Your task to perform on an android device: Is it going to rain today? Image 0: 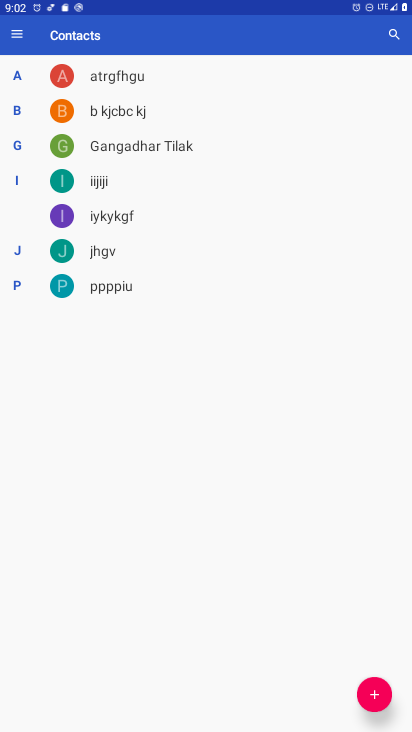
Step 0: press home button
Your task to perform on an android device: Is it going to rain today? Image 1: 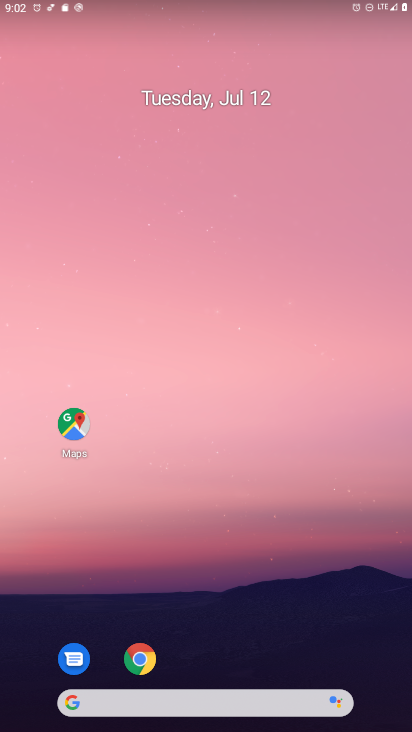
Step 1: drag from (173, 706) to (212, 166)
Your task to perform on an android device: Is it going to rain today? Image 2: 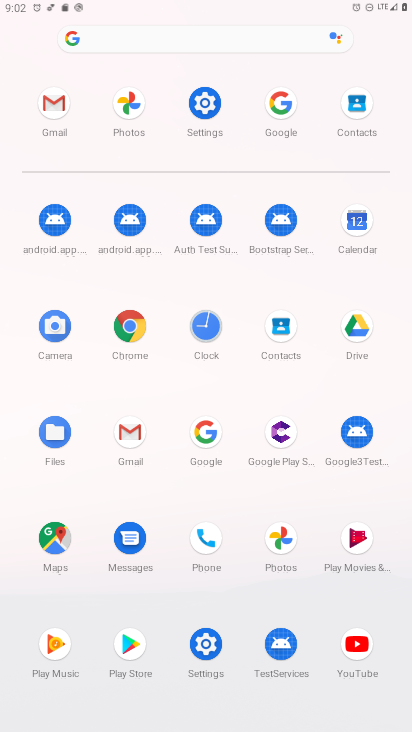
Step 2: click (203, 432)
Your task to perform on an android device: Is it going to rain today? Image 3: 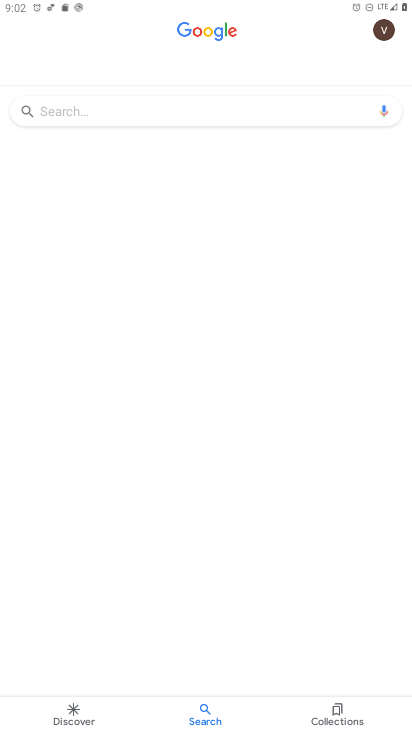
Step 3: click (232, 106)
Your task to perform on an android device: Is it going to rain today? Image 4: 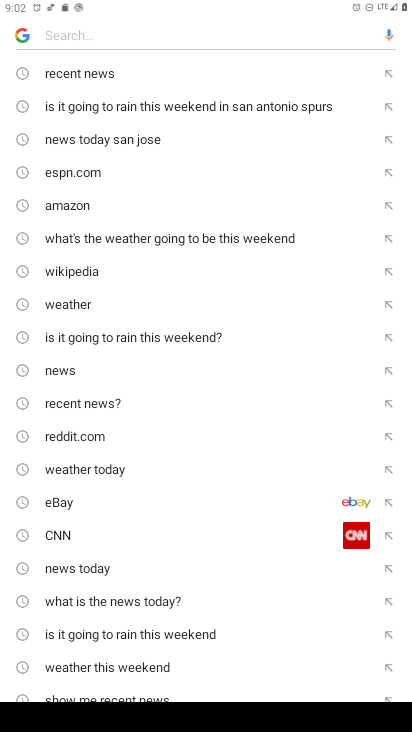
Step 4: click (240, 42)
Your task to perform on an android device: Is it going to rain today? Image 5: 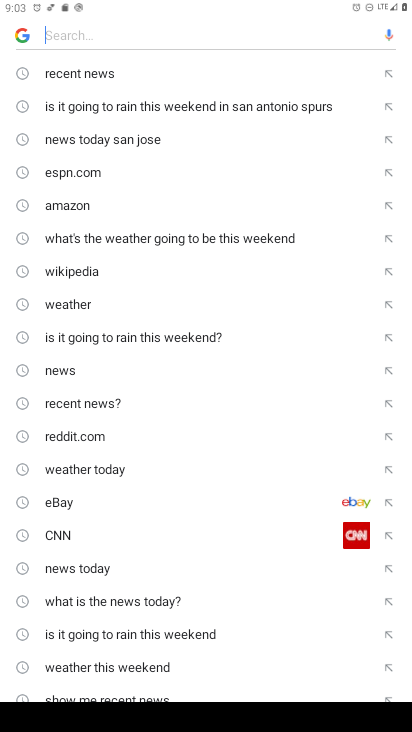
Step 5: type "Is it going to rain today?"
Your task to perform on an android device: Is it going to rain today? Image 6: 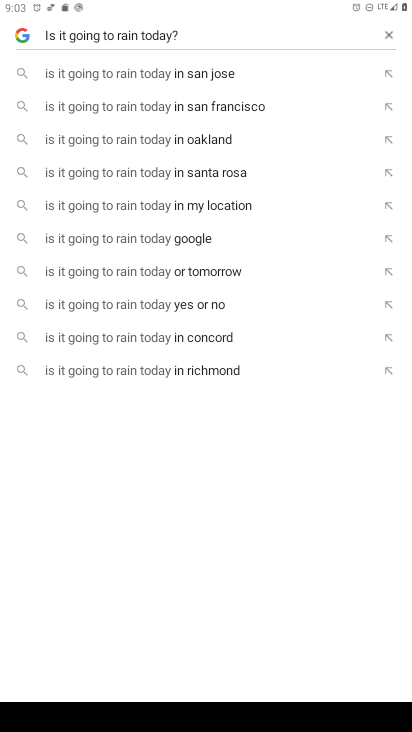
Step 6: click (132, 72)
Your task to perform on an android device: Is it going to rain today? Image 7: 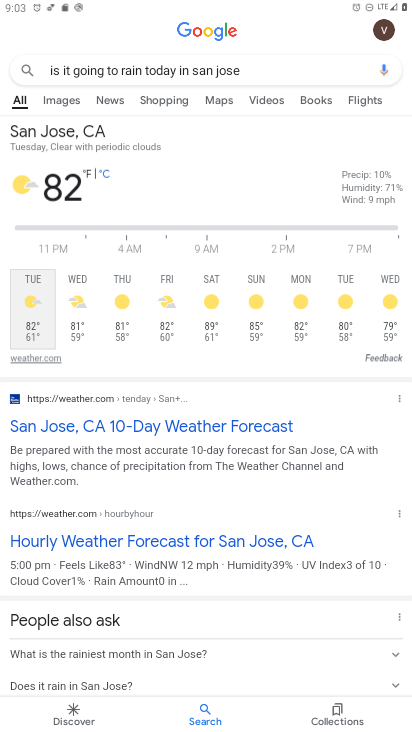
Step 7: task complete